Your task to perform on an android device: toggle wifi Image 0: 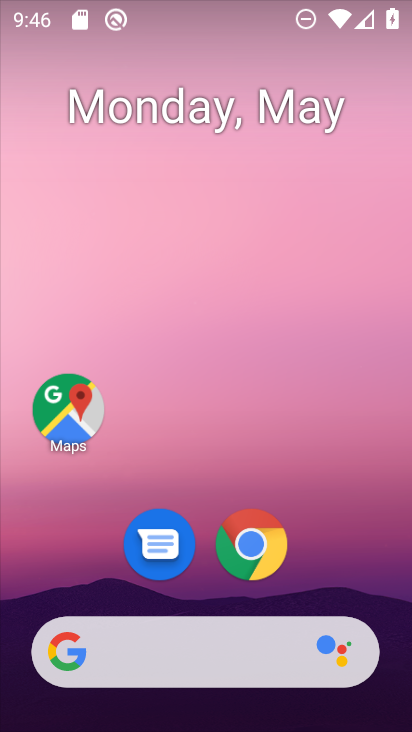
Step 0: drag from (366, 552) to (326, 68)
Your task to perform on an android device: toggle wifi Image 1: 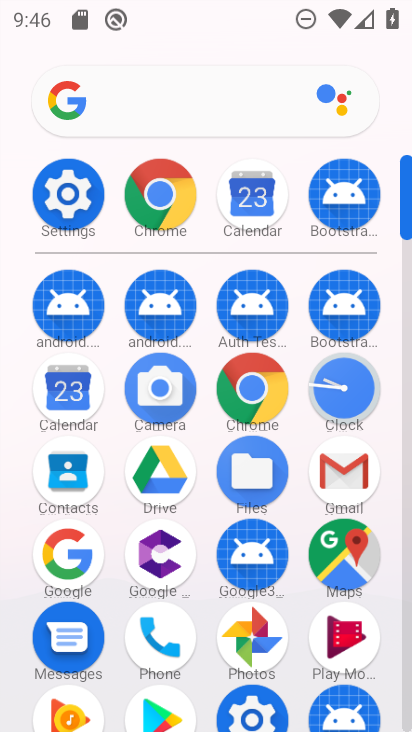
Step 1: click (59, 202)
Your task to perform on an android device: toggle wifi Image 2: 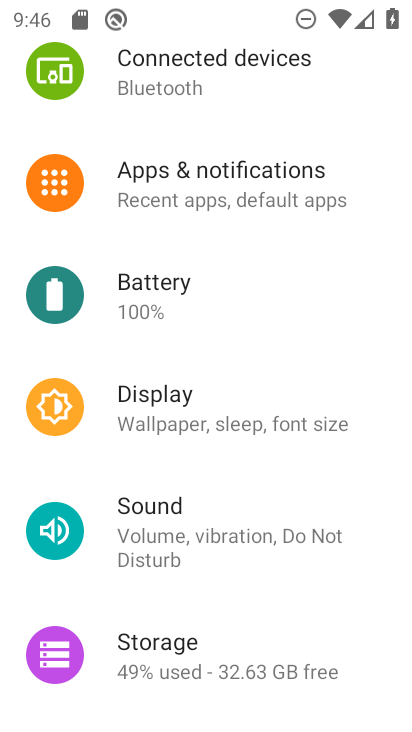
Step 2: drag from (264, 174) to (284, 499)
Your task to perform on an android device: toggle wifi Image 3: 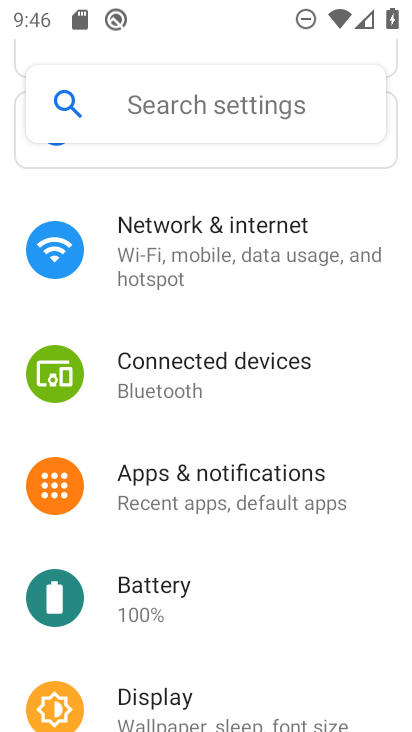
Step 3: click (283, 252)
Your task to perform on an android device: toggle wifi Image 4: 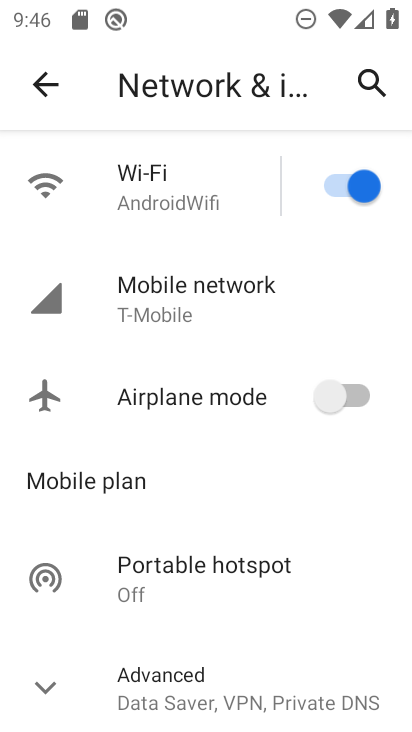
Step 4: click (185, 208)
Your task to perform on an android device: toggle wifi Image 5: 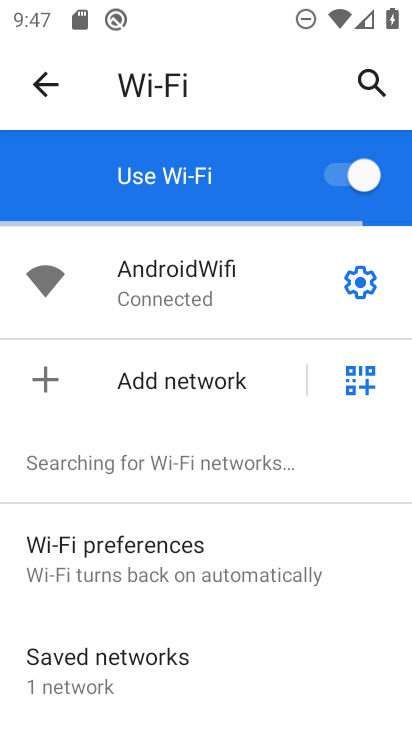
Step 5: click (347, 176)
Your task to perform on an android device: toggle wifi Image 6: 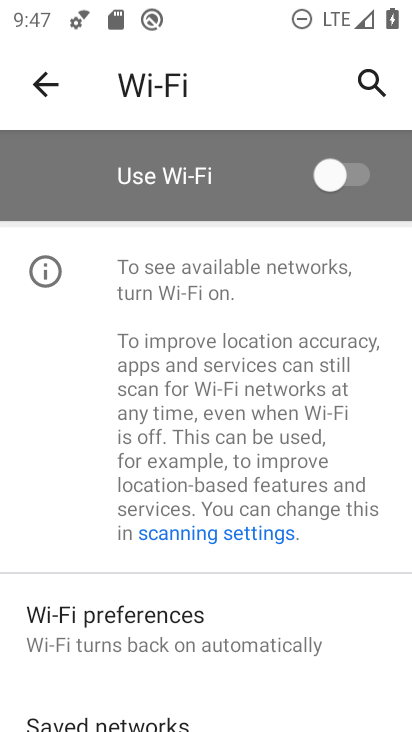
Step 6: task complete